Your task to perform on an android device: check data usage Image 0: 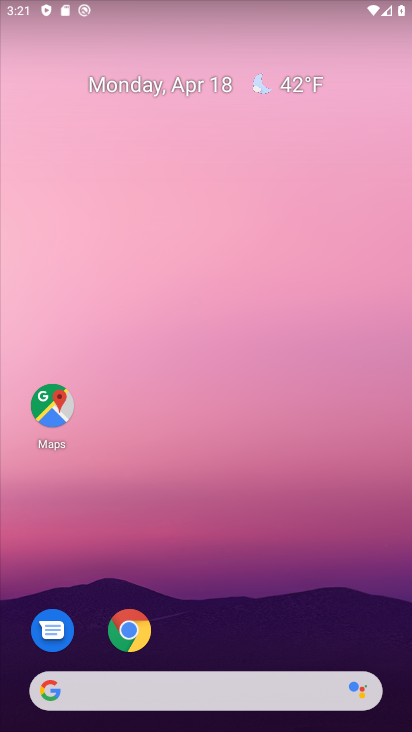
Step 0: drag from (209, 647) to (238, 261)
Your task to perform on an android device: check data usage Image 1: 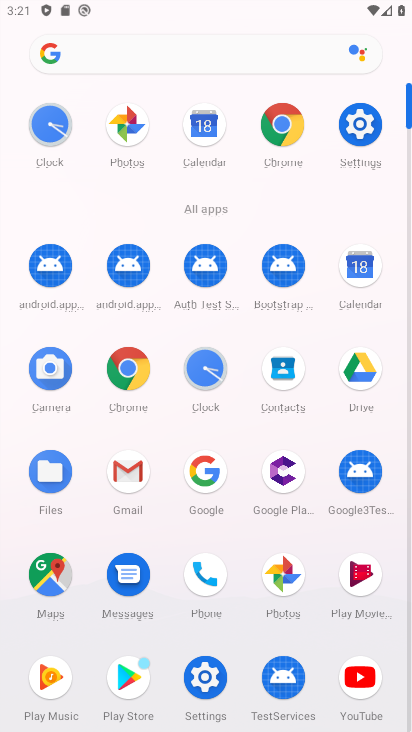
Step 1: click (356, 130)
Your task to perform on an android device: check data usage Image 2: 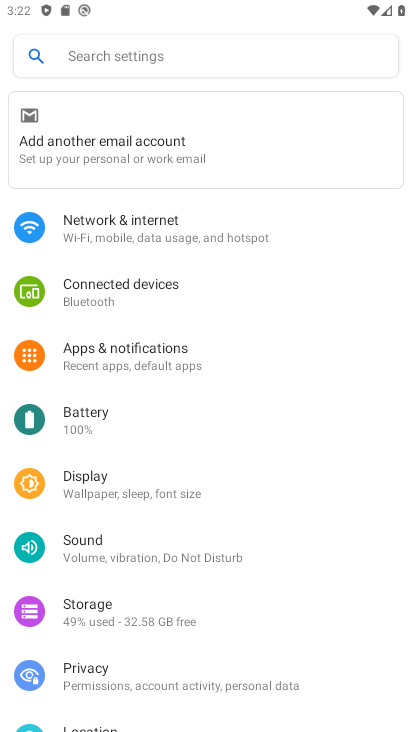
Step 2: click (151, 242)
Your task to perform on an android device: check data usage Image 3: 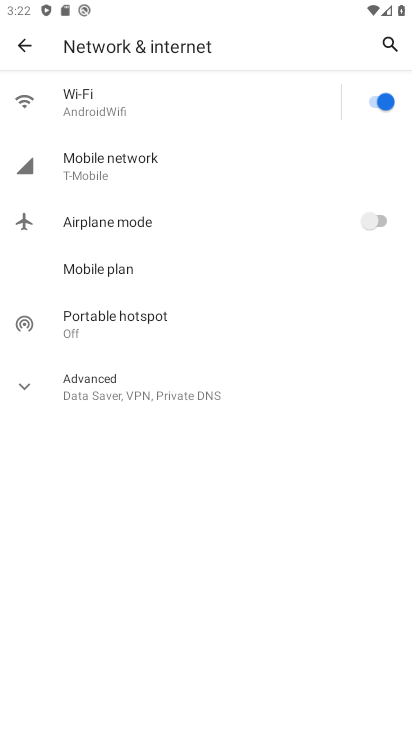
Step 3: click (115, 166)
Your task to perform on an android device: check data usage Image 4: 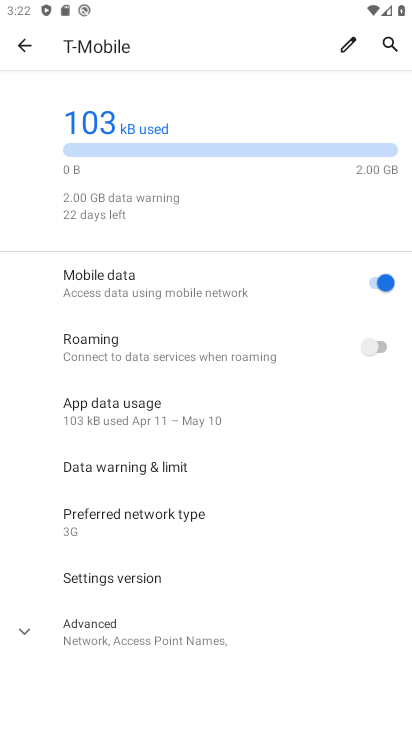
Step 4: click (162, 294)
Your task to perform on an android device: check data usage Image 5: 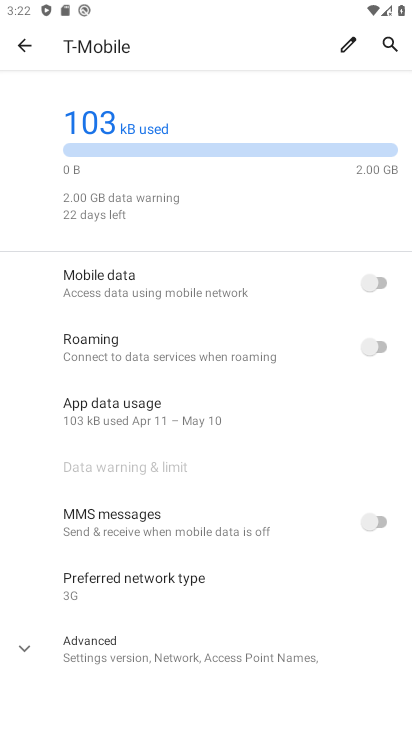
Step 5: drag from (201, 607) to (207, 375)
Your task to perform on an android device: check data usage Image 6: 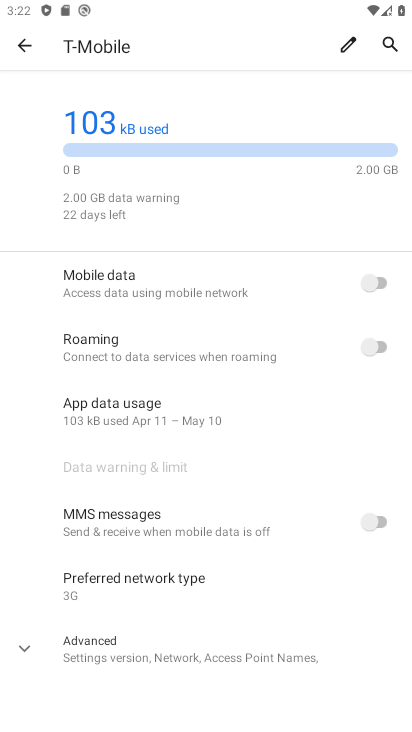
Step 6: click (111, 394)
Your task to perform on an android device: check data usage Image 7: 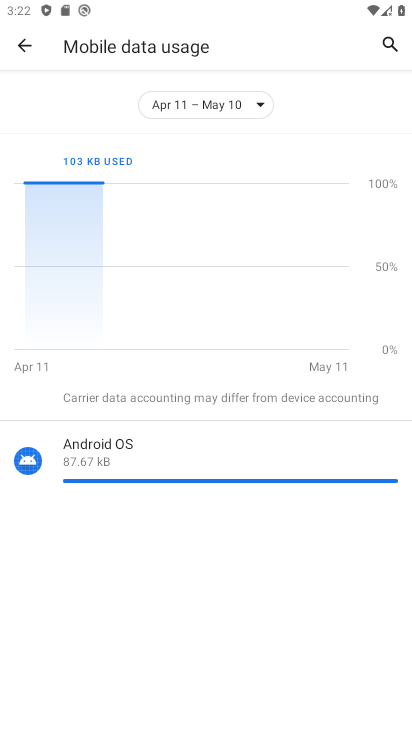
Step 7: task complete